Your task to perform on an android device: turn on notifications settings in the gmail app Image 0: 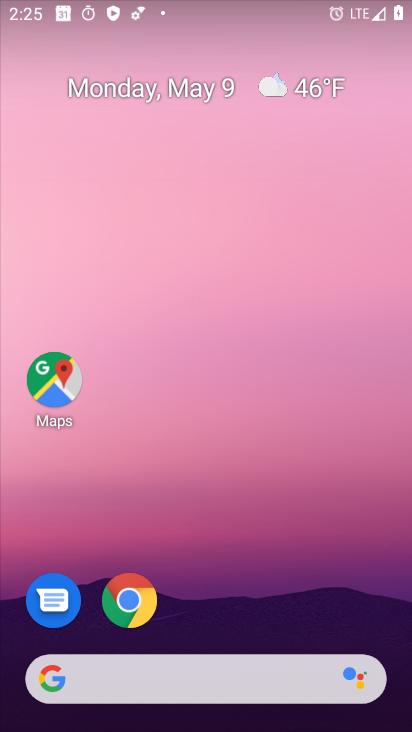
Step 0: drag from (207, 670) to (203, 71)
Your task to perform on an android device: turn on notifications settings in the gmail app Image 1: 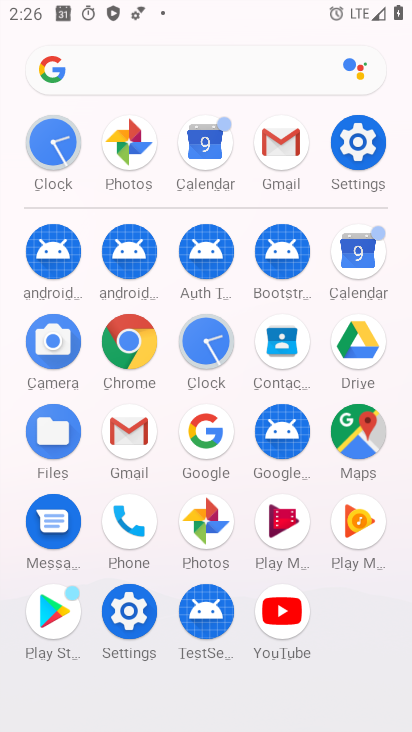
Step 1: click (338, 150)
Your task to perform on an android device: turn on notifications settings in the gmail app Image 2: 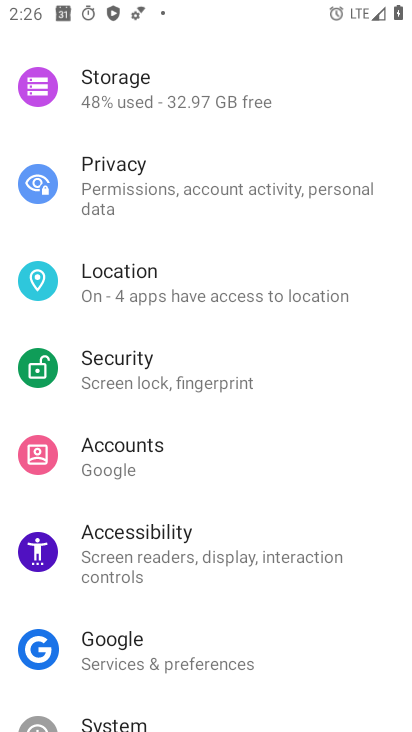
Step 2: drag from (143, 104) to (209, 564)
Your task to perform on an android device: turn on notifications settings in the gmail app Image 3: 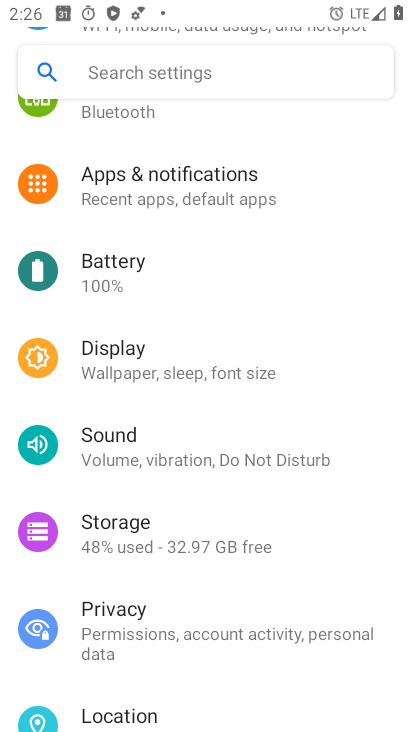
Step 3: press home button
Your task to perform on an android device: turn on notifications settings in the gmail app Image 4: 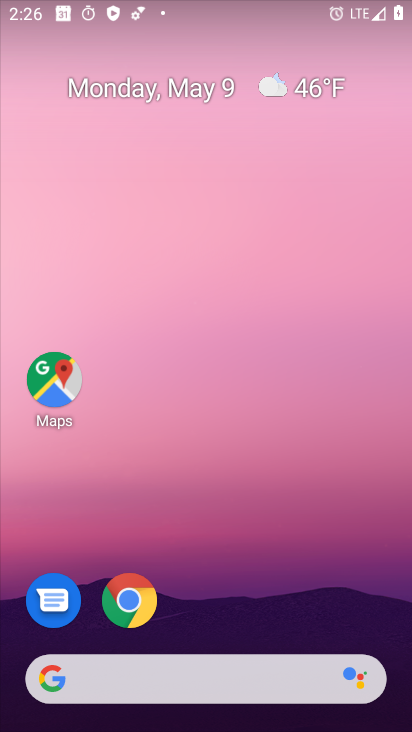
Step 4: drag from (191, 620) to (178, 191)
Your task to perform on an android device: turn on notifications settings in the gmail app Image 5: 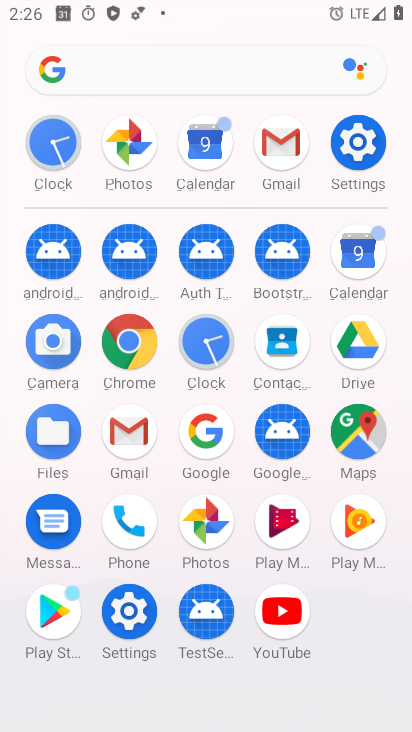
Step 5: click (141, 439)
Your task to perform on an android device: turn on notifications settings in the gmail app Image 6: 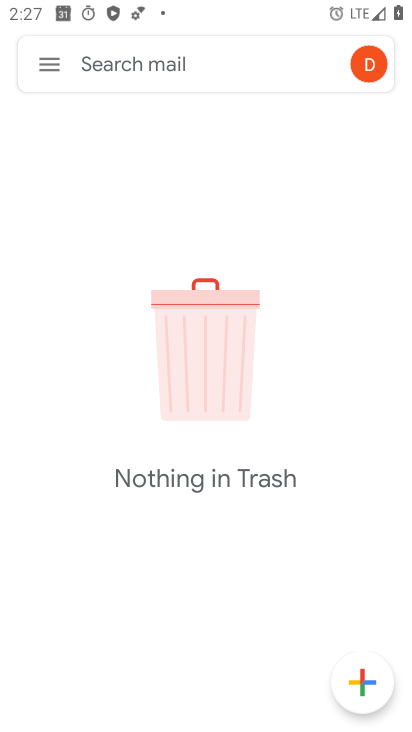
Step 6: click (57, 78)
Your task to perform on an android device: turn on notifications settings in the gmail app Image 7: 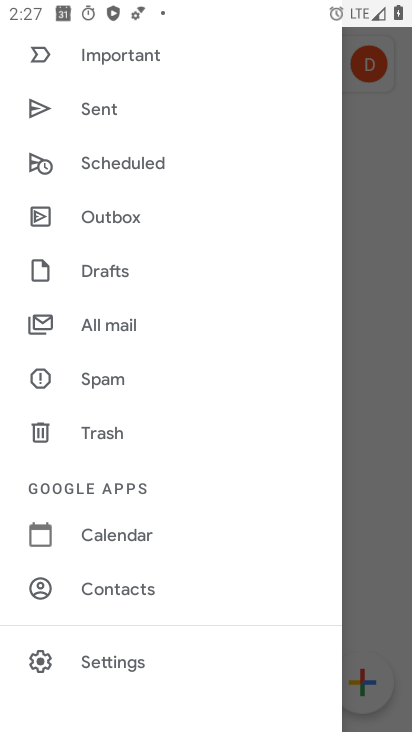
Step 7: drag from (118, 554) to (95, 174)
Your task to perform on an android device: turn on notifications settings in the gmail app Image 8: 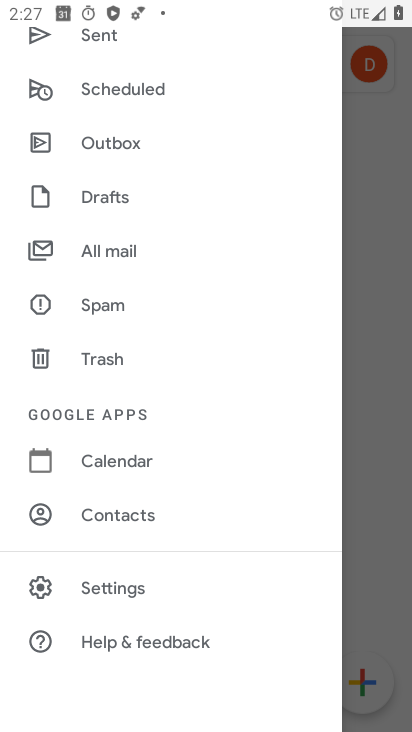
Step 8: click (124, 587)
Your task to perform on an android device: turn on notifications settings in the gmail app Image 9: 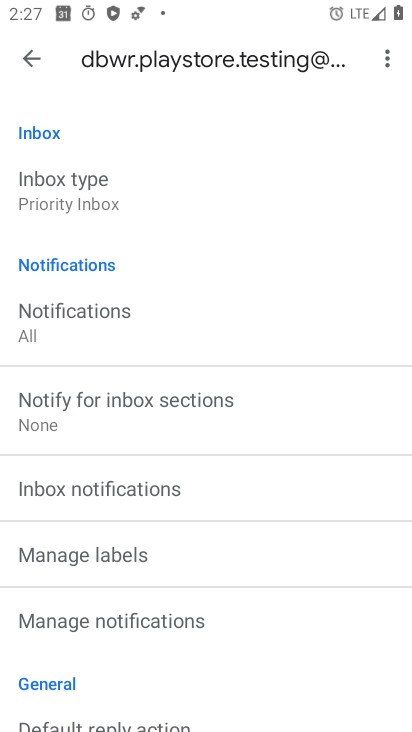
Step 9: click (148, 623)
Your task to perform on an android device: turn on notifications settings in the gmail app Image 10: 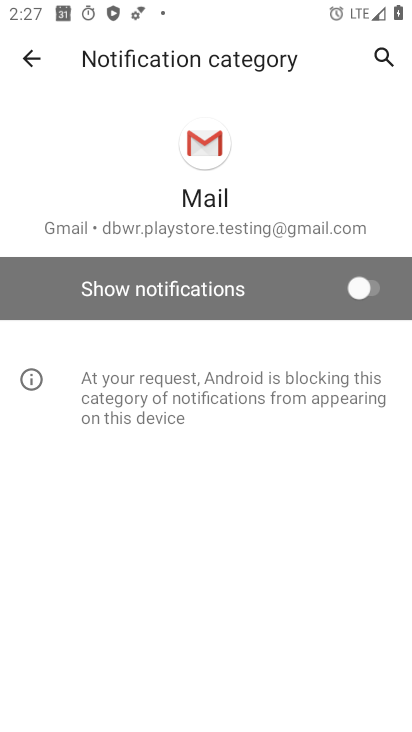
Step 10: click (356, 277)
Your task to perform on an android device: turn on notifications settings in the gmail app Image 11: 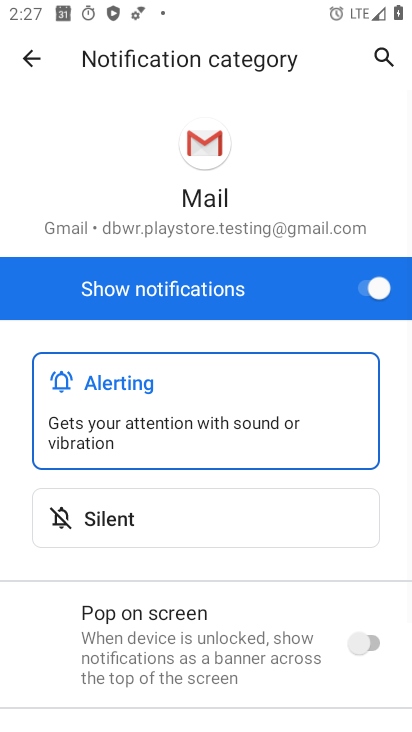
Step 11: task complete